Your task to perform on an android device: change notifications settings Image 0: 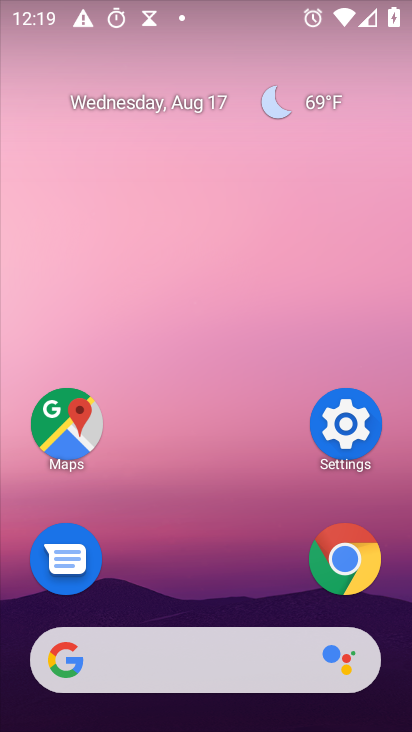
Step 0: click (349, 427)
Your task to perform on an android device: change notifications settings Image 1: 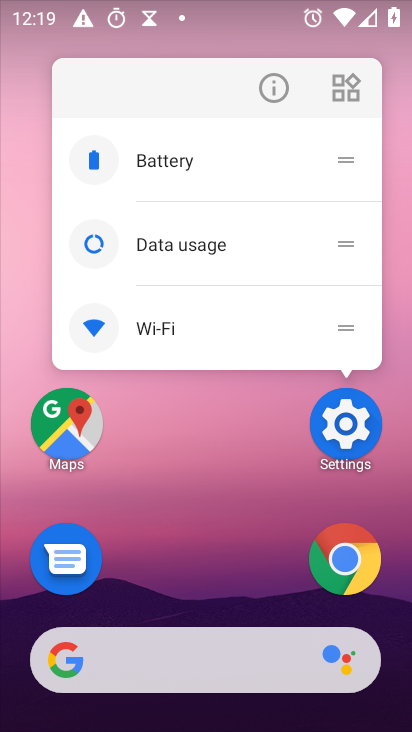
Step 1: click (348, 428)
Your task to perform on an android device: change notifications settings Image 2: 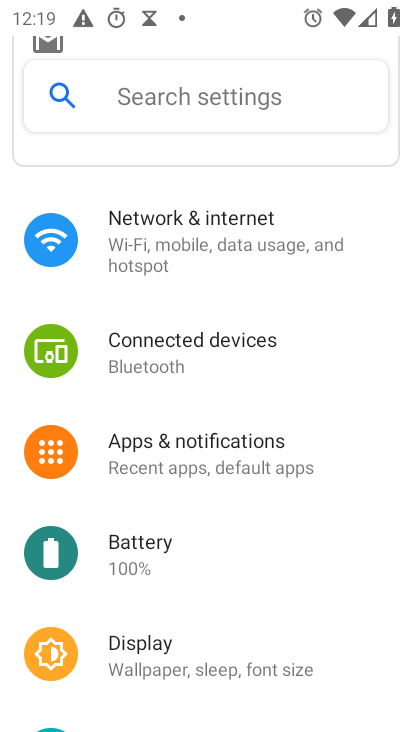
Step 2: click (205, 446)
Your task to perform on an android device: change notifications settings Image 3: 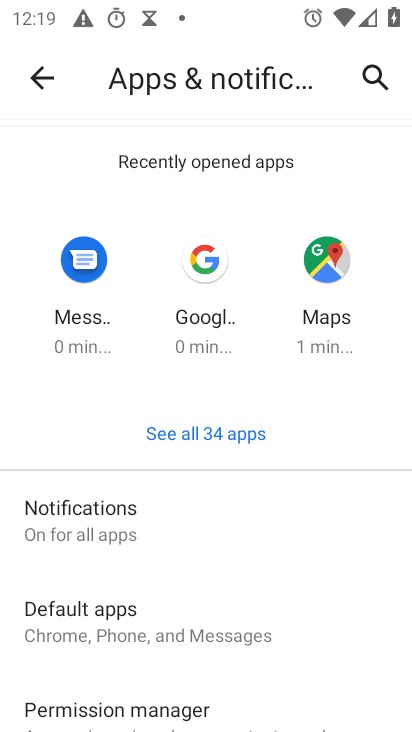
Step 3: click (102, 527)
Your task to perform on an android device: change notifications settings Image 4: 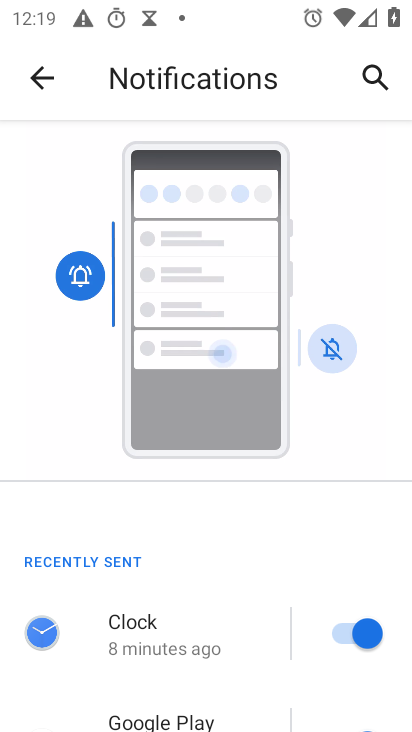
Step 4: task complete